Your task to perform on an android device: Go to wifi settings Image 0: 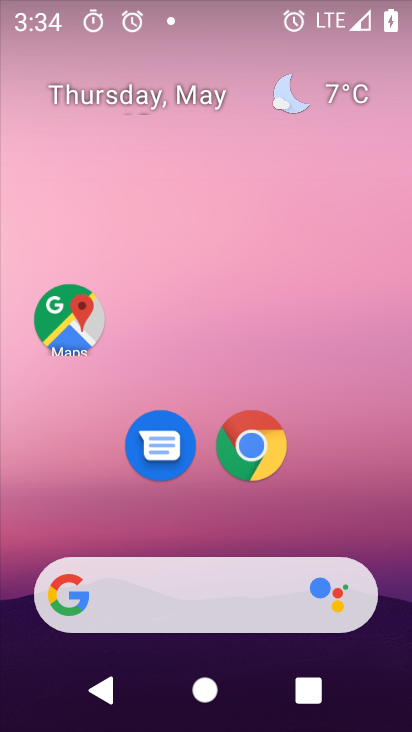
Step 0: drag from (384, 463) to (385, 10)
Your task to perform on an android device: Go to wifi settings Image 1: 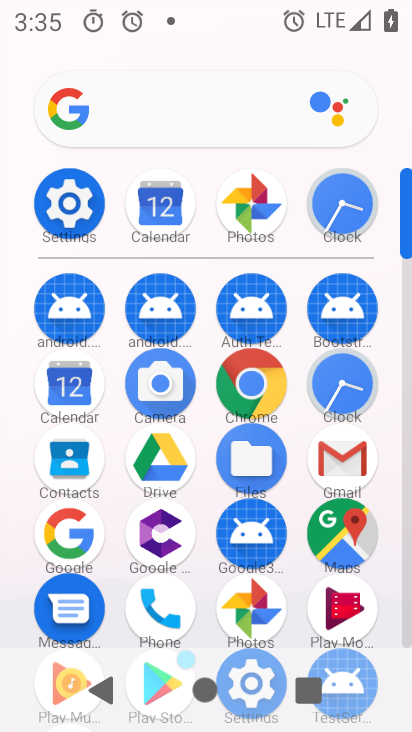
Step 1: click (70, 211)
Your task to perform on an android device: Go to wifi settings Image 2: 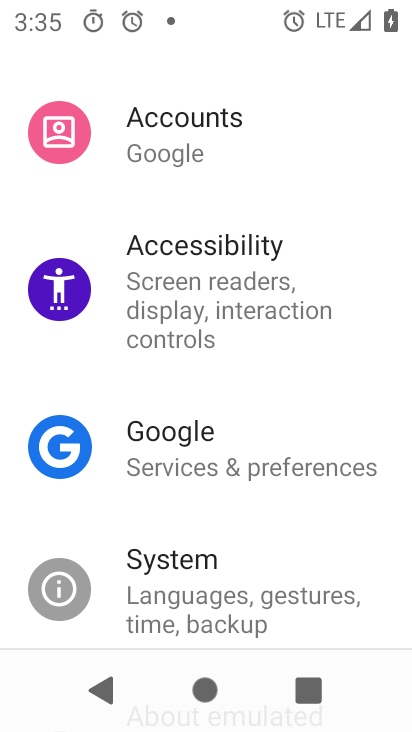
Step 2: drag from (387, 213) to (407, 522)
Your task to perform on an android device: Go to wifi settings Image 3: 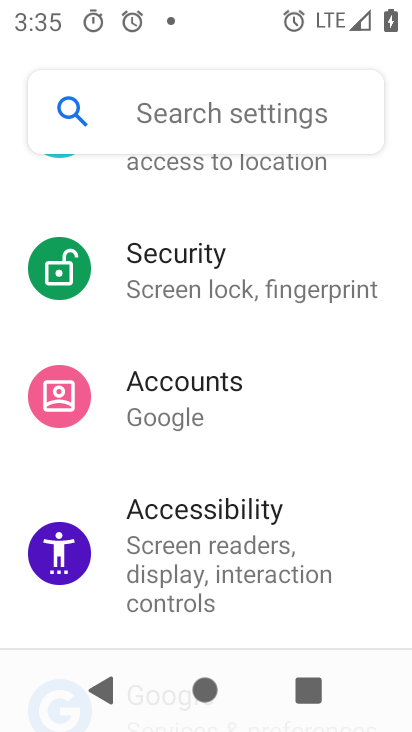
Step 3: drag from (355, 236) to (379, 534)
Your task to perform on an android device: Go to wifi settings Image 4: 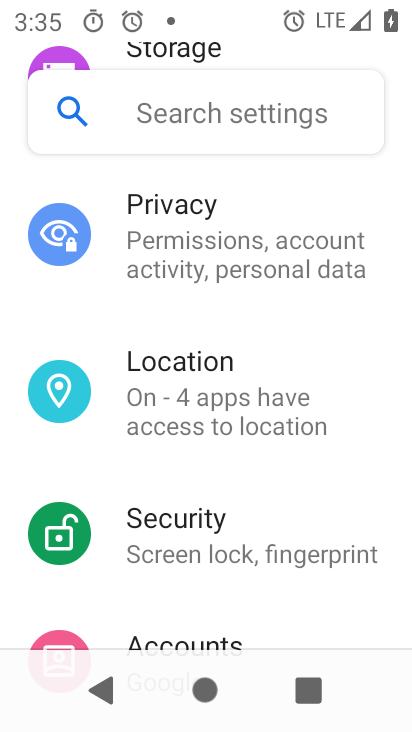
Step 4: drag from (355, 331) to (363, 593)
Your task to perform on an android device: Go to wifi settings Image 5: 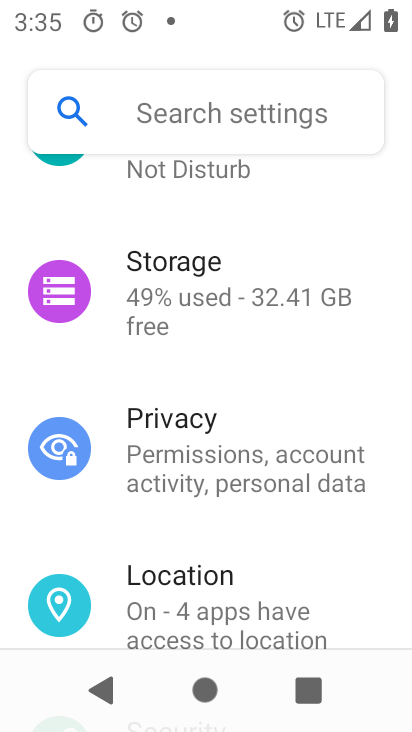
Step 5: drag from (360, 248) to (366, 579)
Your task to perform on an android device: Go to wifi settings Image 6: 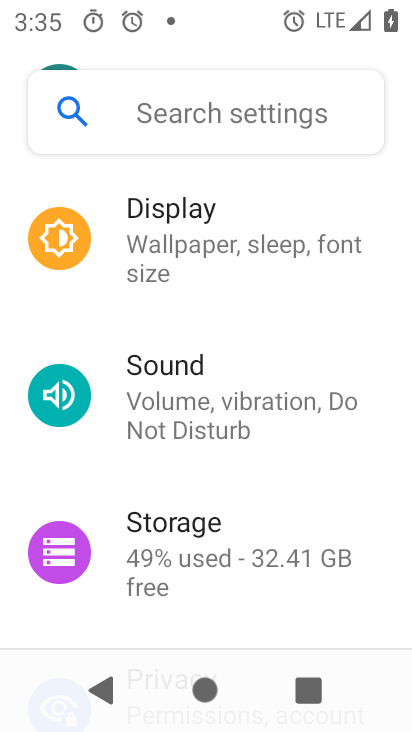
Step 6: drag from (365, 214) to (353, 638)
Your task to perform on an android device: Go to wifi settings Image 7: 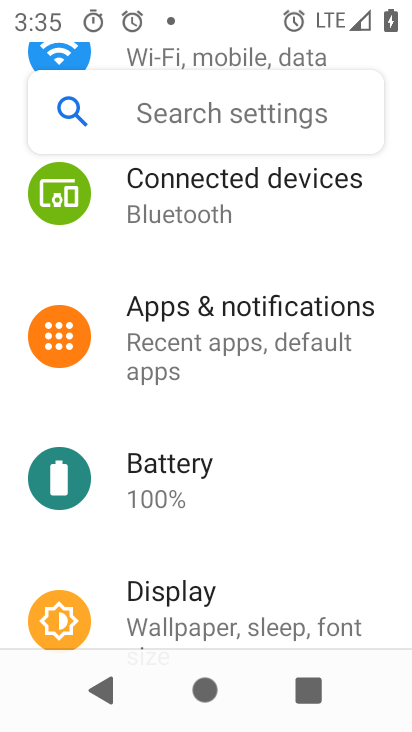
Step 7: drag from (371, 217) to (379, 575)
Your task to perform on an android device: Go to wifi settings Image 8: 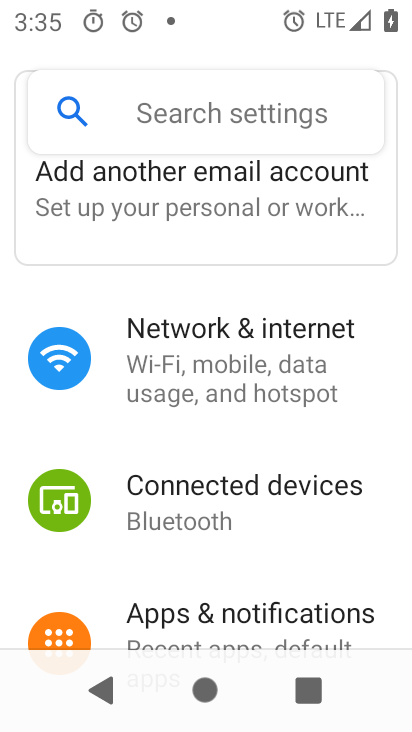
Step 8: drag from (376, 254) to (368, 543)
Your task to perform on an android device: Go to wifi settings Image 9: 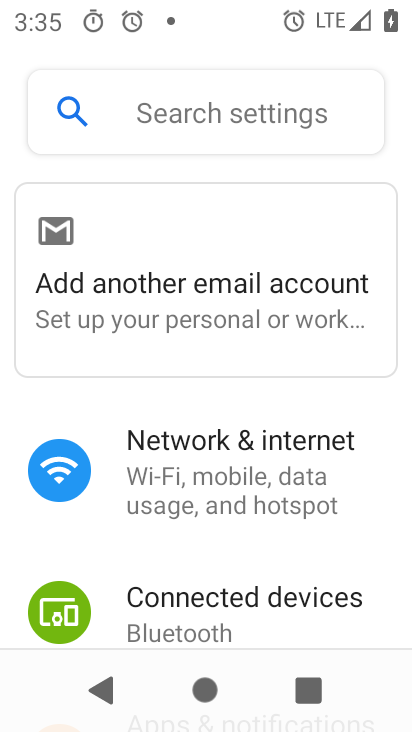
Step 9: click (186, 451)
Your task to perform on an android device: Go to wifi settings Image 10: 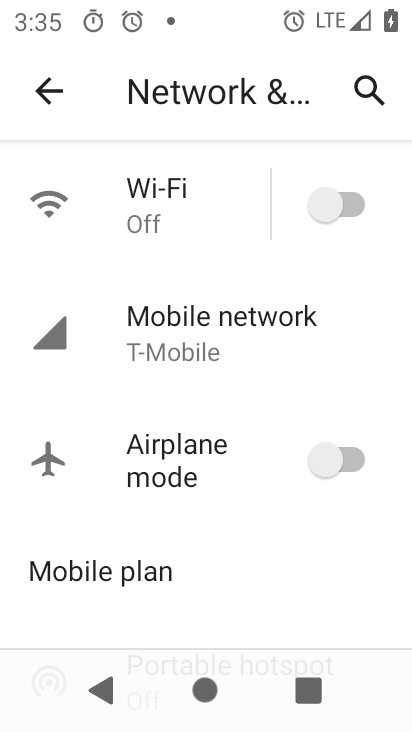
Step 10: click (118, 197)
Your task to perform on an android device: Go to wifi settings Image 11: 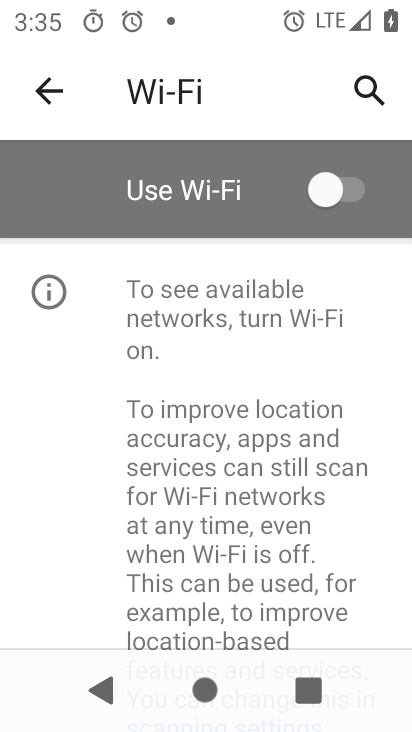
Step 11: task complete